Your task to perform on an android device: Open location settings Image 0: 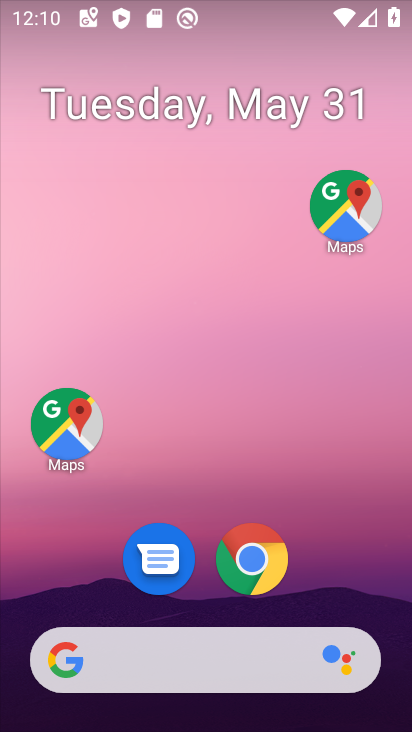
Step 0: drag from (325, 513) to (204, 116)
Your task to perform on an android device: Open location settings Image 1: 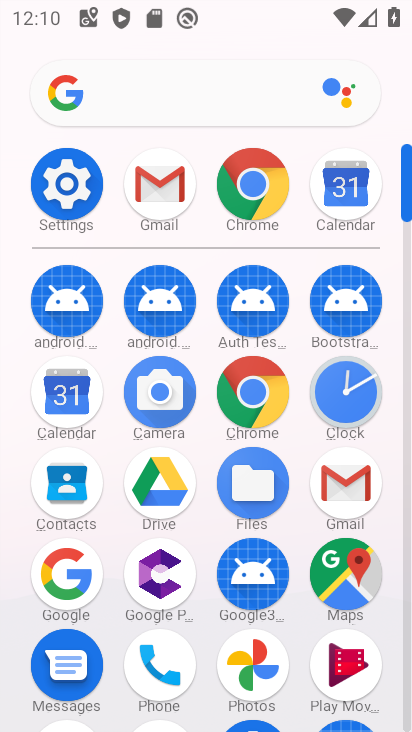
Step 1: click (75, 199)
Your task to perform on an android device: Open location settings Image 2: 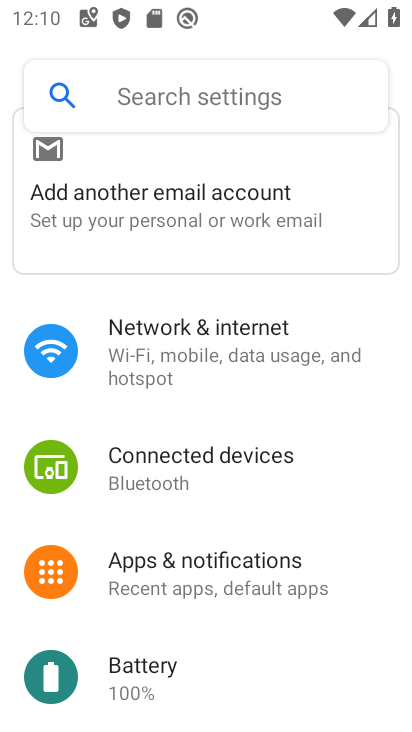
Step 2: drag from (267, 578) to (241, 183)
Your task to perform on an android device: Open location settings Image 3: 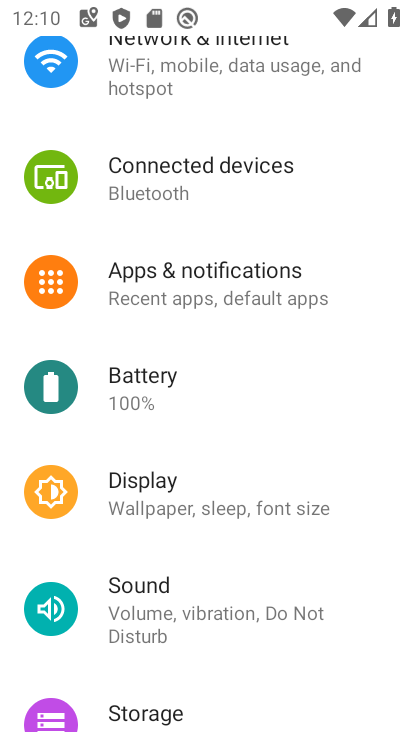
Step 3: drag from (228, 500) to (235, 110)
Your task to perform on an android device: Open location settings Image 4: 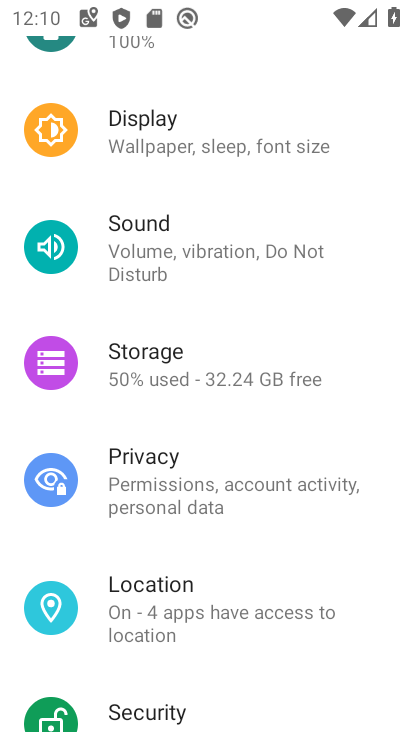
Step 4: click (159, 601)
Your task to perform on an android device: Open location settings Image 5: 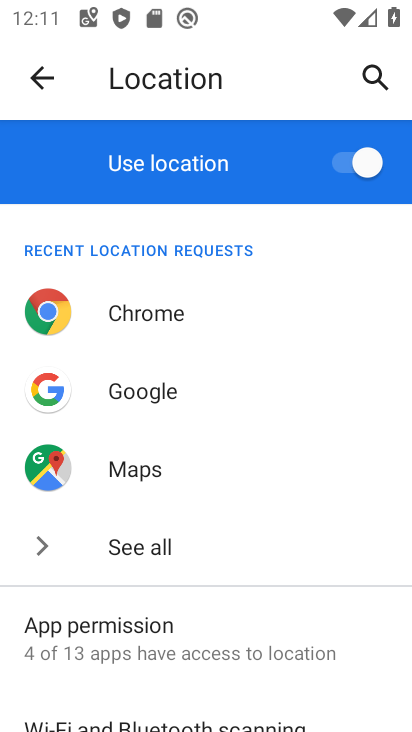
Step 5: task complete